Your task to perform on an android device: Open location settings Image 0: 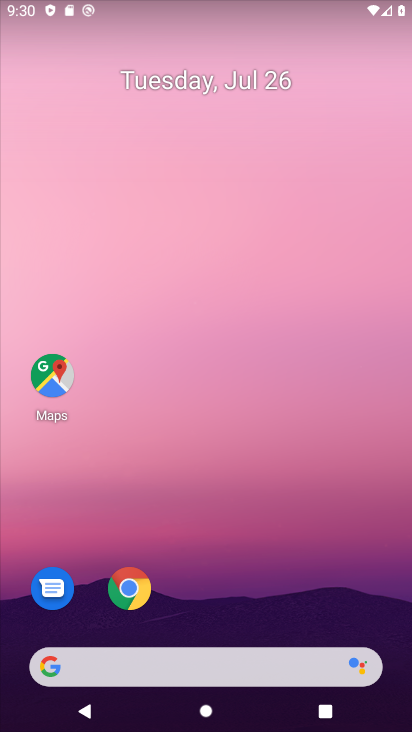
Step 0: drag from (236, 545) to (332, 74)
Your task to perform on an android device: Open location settings Image 1: 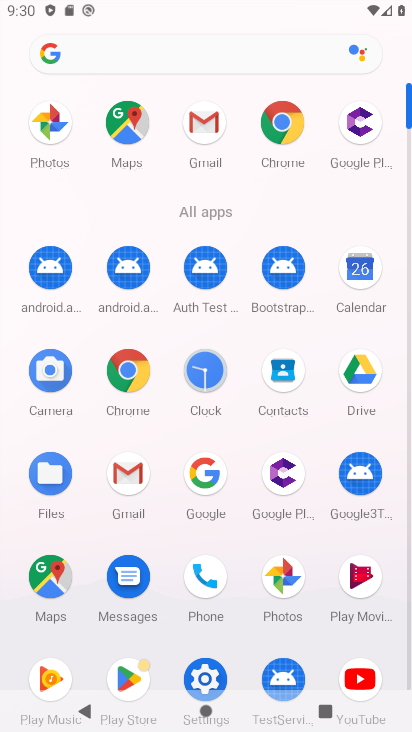
Step 1: click (205, 666)
Your task to perform on an android device: Open location settings Image 2: 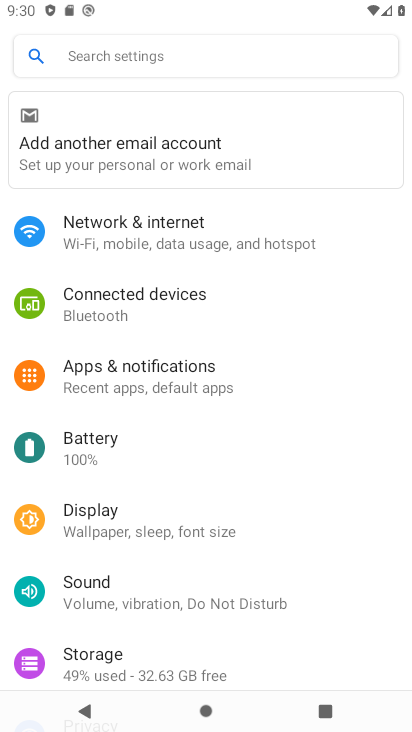
Step 2: drag from (157, 623) to (231, 82)
Your task to perform on an android device: Open location settings Image 3: 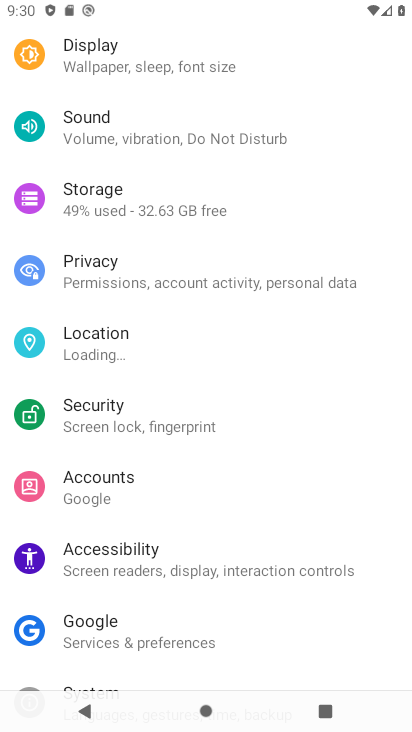
Step 3: click (98, 335)
Your task to perform on an android device: Open location settings Image 4: 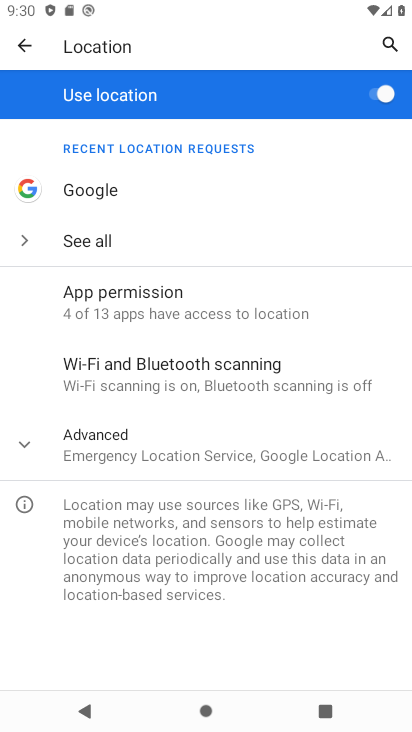
Step 4: task complete